Your task to perform on an android device: Search for razer blade on amazon.com, select the first entry, add it to the cart, then select checkout. Image 0: 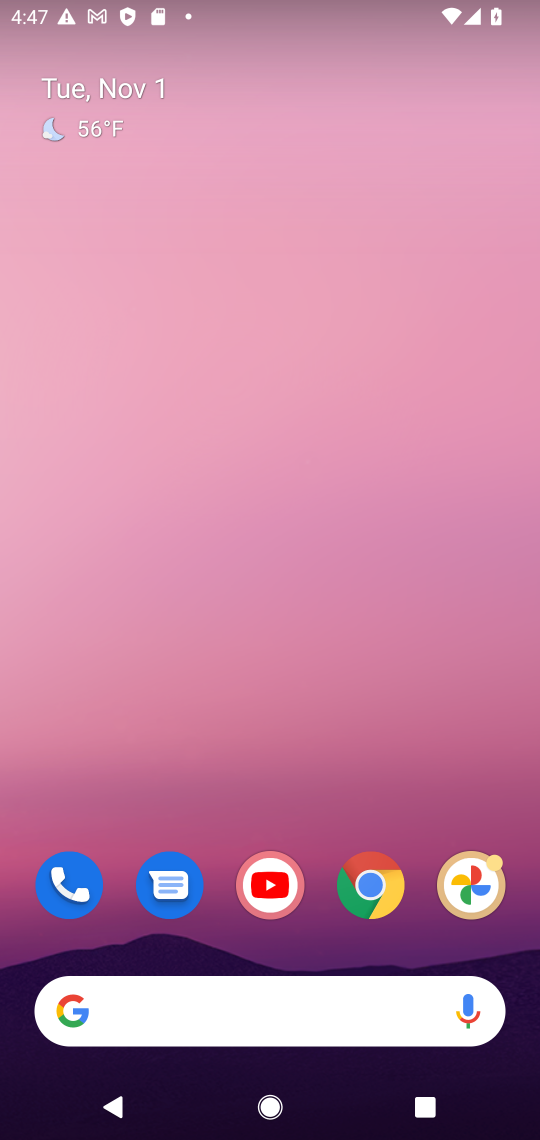
Step 0: click (364, 892)
Your task to perform on an android device: Search for razer blade on amazon.com, select the first entry, add it to the cart, then select checkout. Image 1: 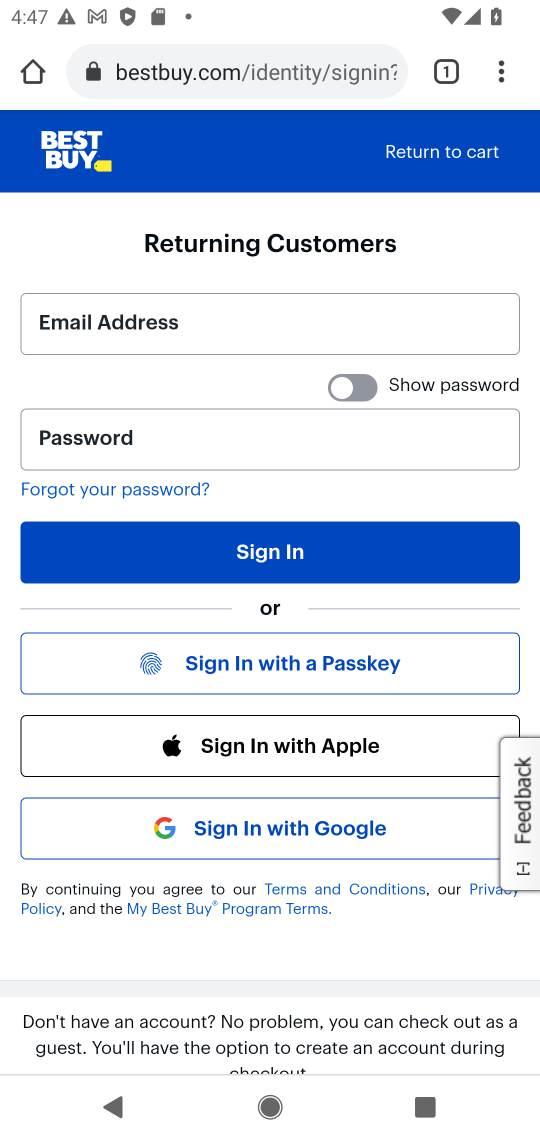
Step 1: click (254, 45)
Your task to perform on an android device: Search for razer blade on amazon.com, select the first entry, add it to the cart, then select checkout. Image 2: 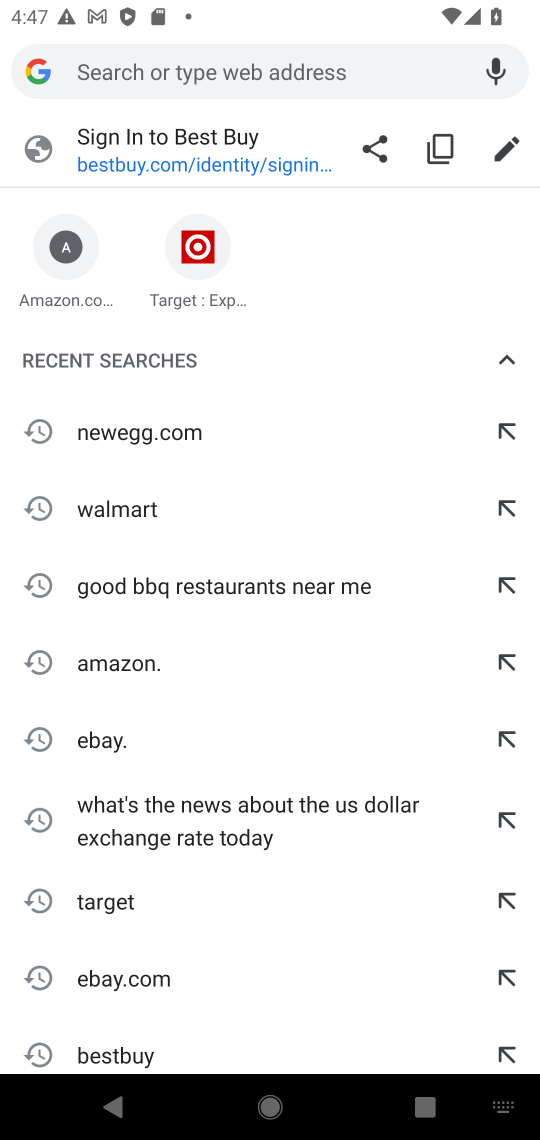
Step 2: type "amazon.com"
Your task to perform on an android device: Search for razer blade on amazon.com, select the first entry, add it to the cart, then select checkout. Image 3: 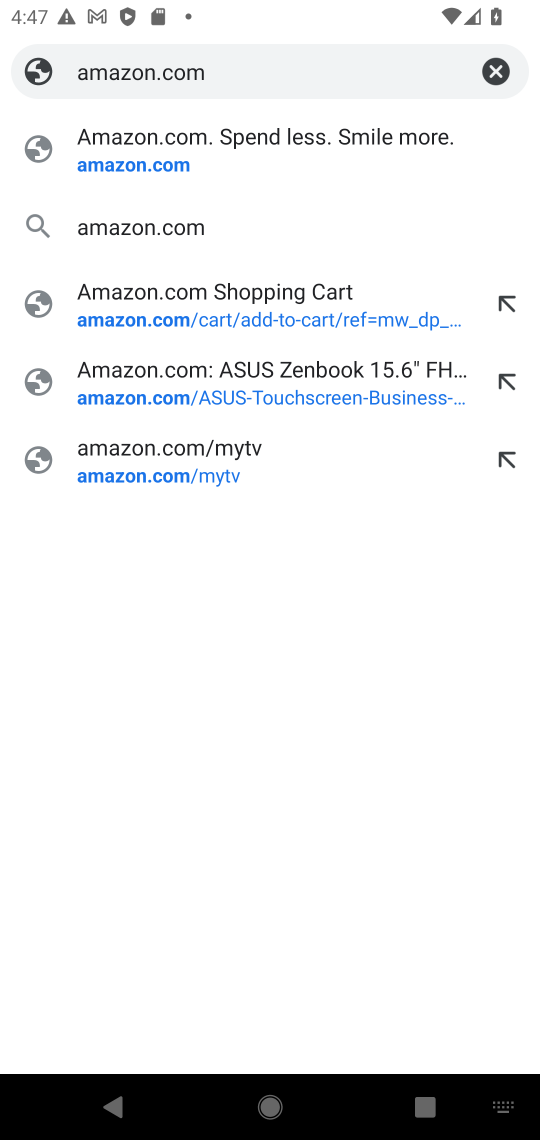
Step 3: click (122, 143)
Your task to perform on an android device: Search for razer blade on amazon.com, select the first entry, add it to the cart, then select checkout. Image 4: 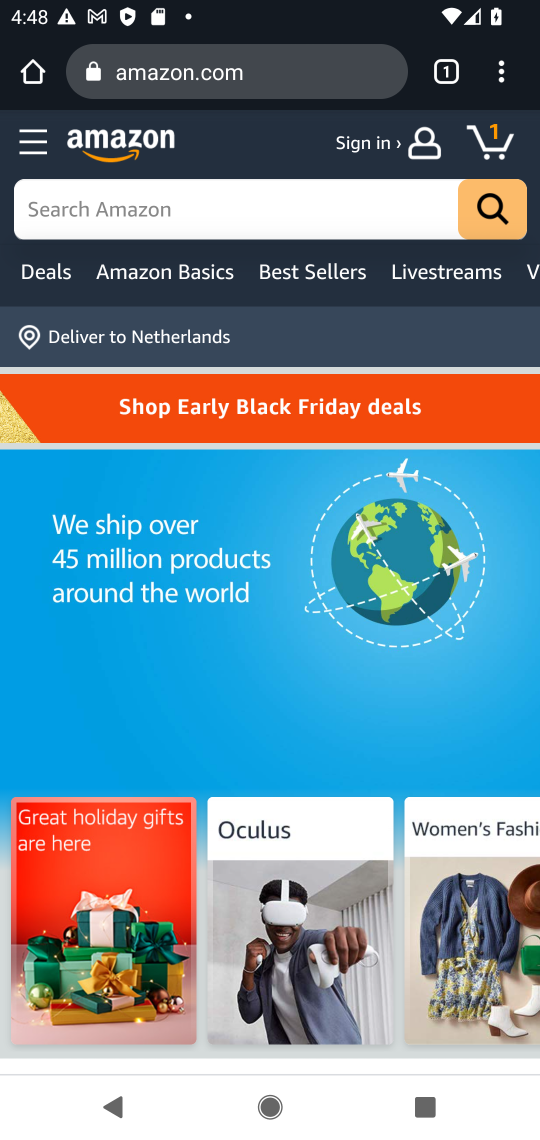
Step 4: click (131, 204)
Your task to perform on an android device: Search for razer blade on amazon.com, select the first entry, add it to the cart, then select checkout. Image 5: 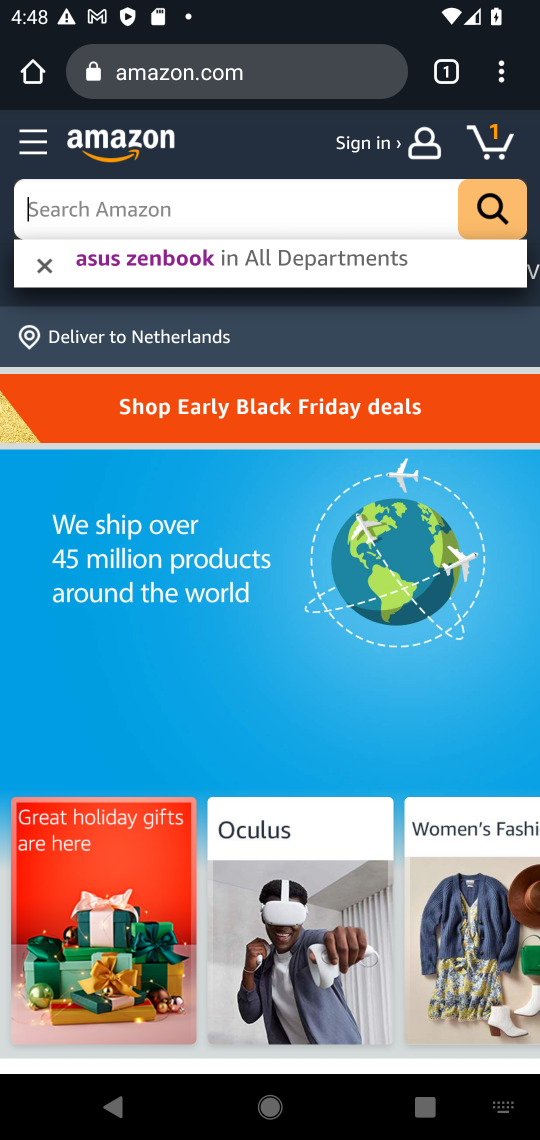
Step 5: type "razer blade"
Your task to perform on an android device: Search for razer blade on amazon.com, select the first entry, add it to the cart, then select checkout. Image 6: 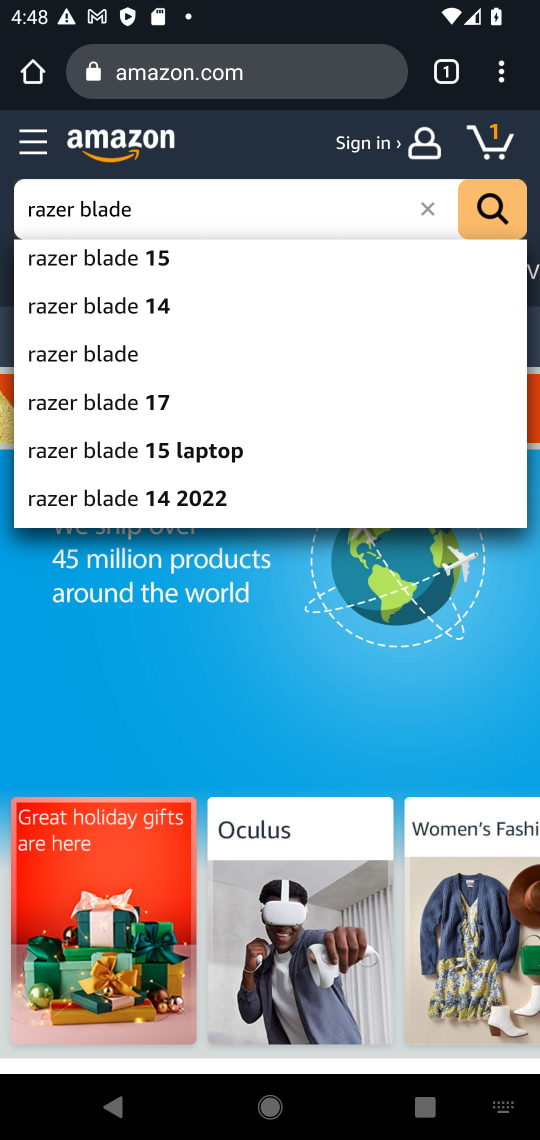
Step 6: click (117, 346)
Your task to perform on an android device: Search for razer blade on amazon.com, select the first entry, add it to the cart, then select checkout. Image 7: 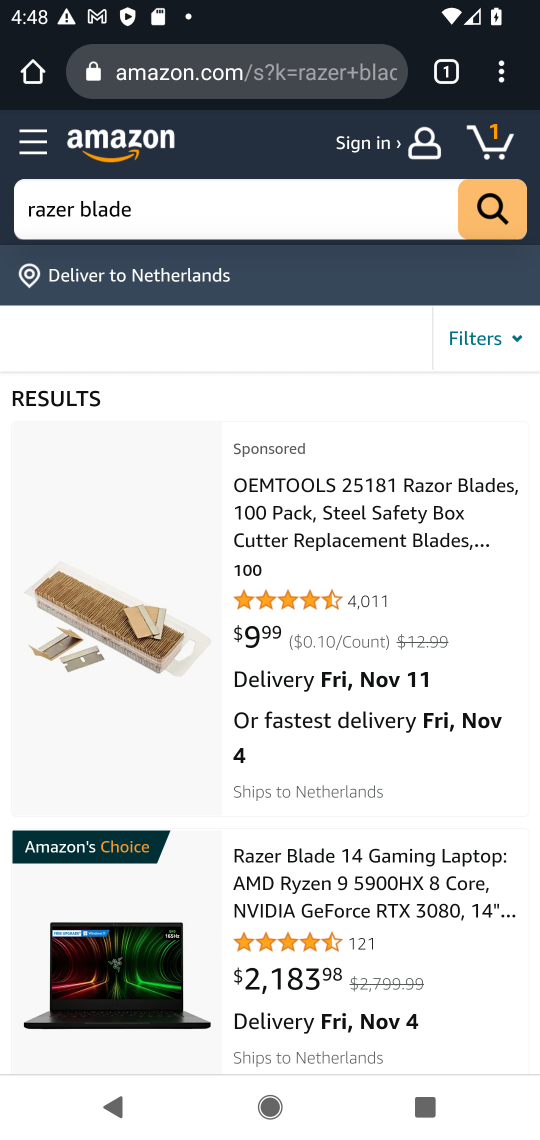
Step 7: drag from (287, 635) to (314, 480)
Your task to perform on an android device: Search for razer blade on amazon.com, select the first entry, add it to the cart, then select checkout. Image 8: 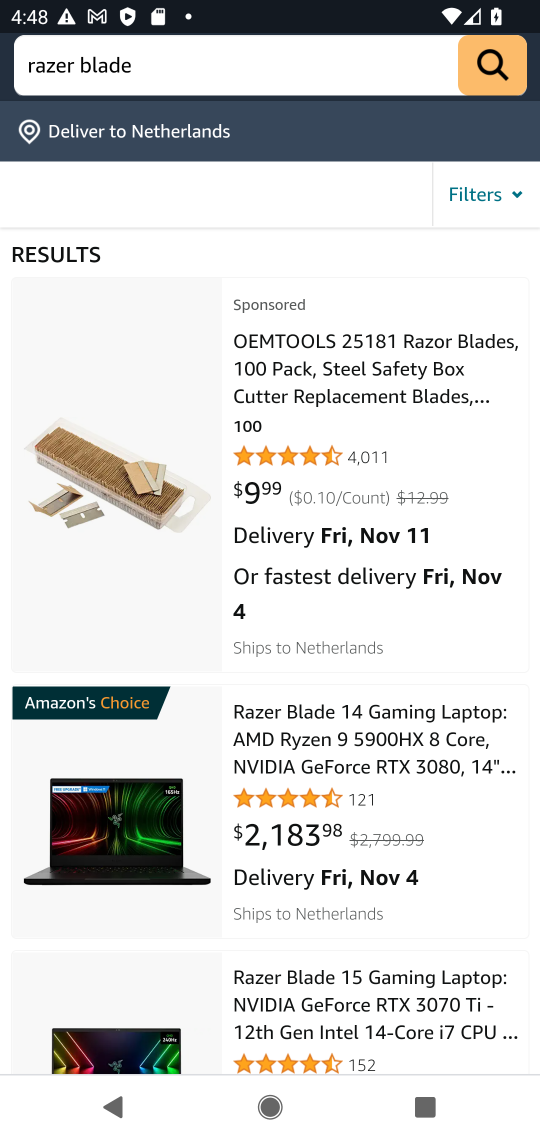
Step 8: click (307, 740)
Your task to perform on an android device: Search for razer blade on amazon.com, select the first entry, add it to the cart, then select checkout. Image 9: 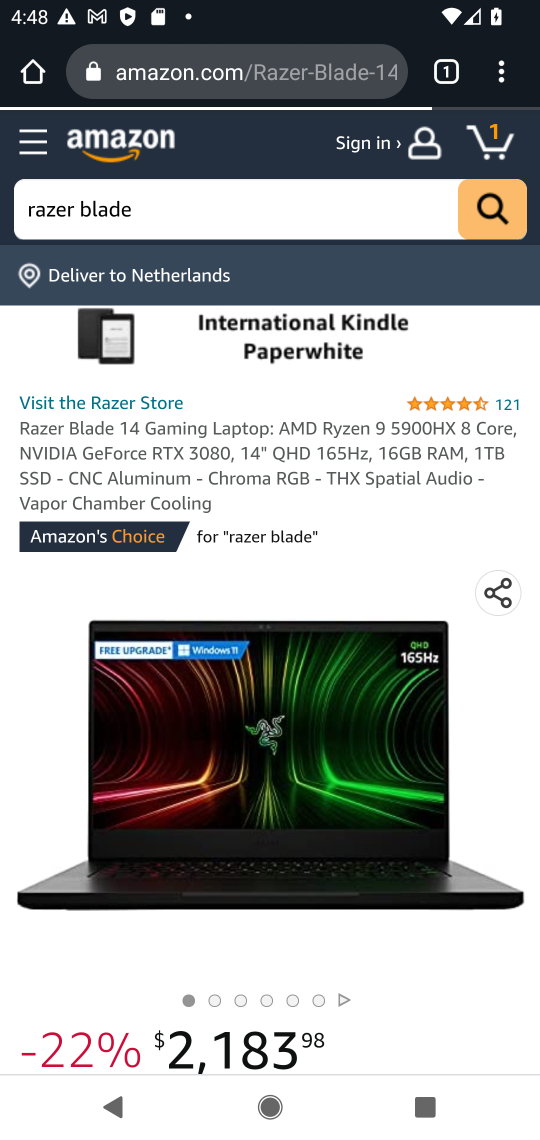
Step 9: drag from (429, 1001) to (357, 432)
Your task to perform on an android device: Search for razer blade on amazon.com, select the first entry, add it to the cart, then select checkout. Image 10: 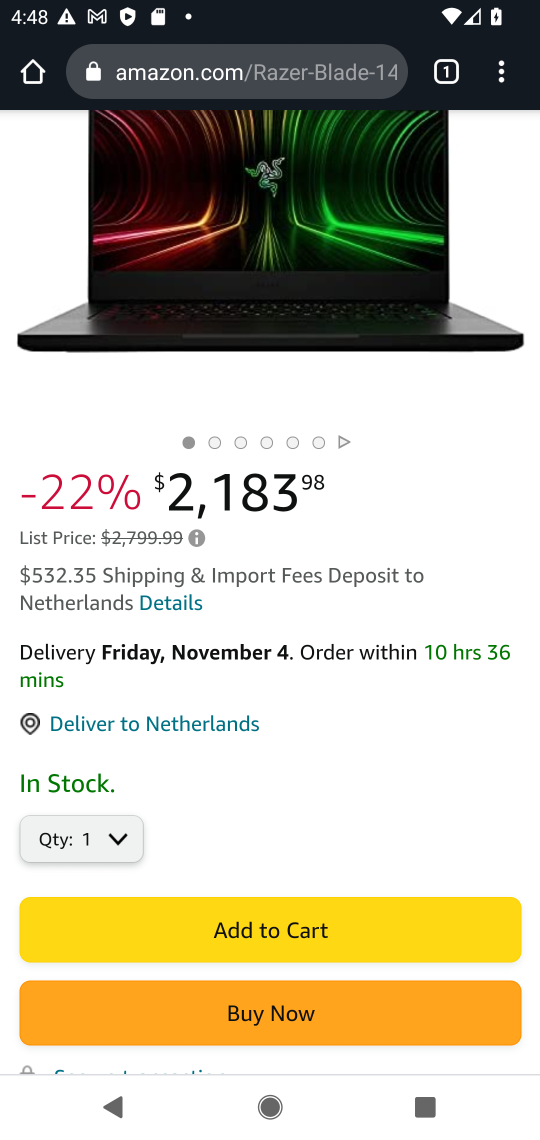
Step 10: click (253, 929)
Your task to perform on an android device: Search for razer blade on amazon.com, select the first entry, add it to the cart, then select checkout. Image 11: 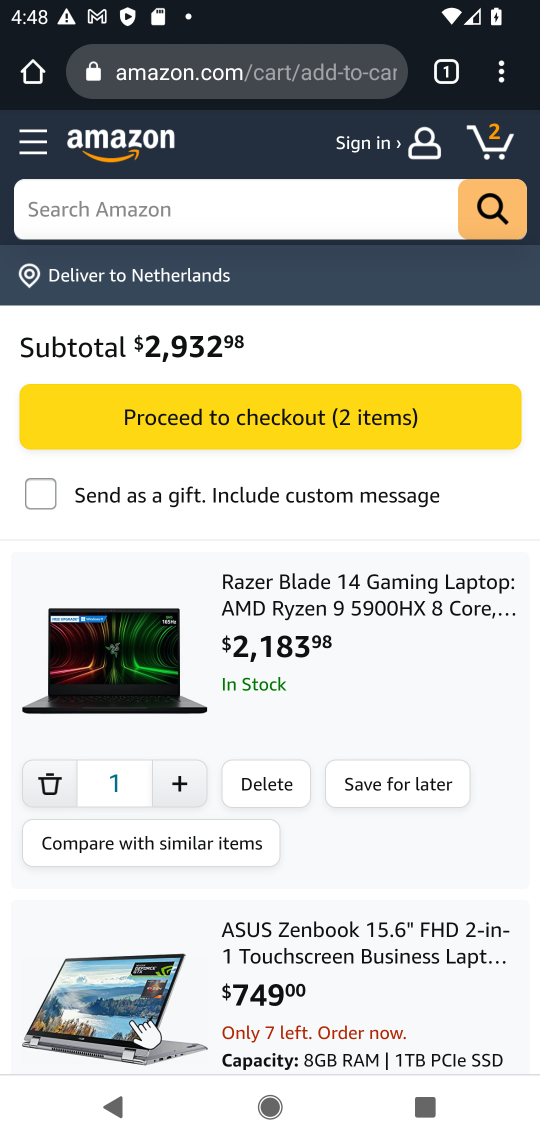
Step 11: click (241, 410)
Your task to perform on an android device: Search for razer blade on amazon.com, select the first entry, add it to the cart, then select checkout. Image 12: 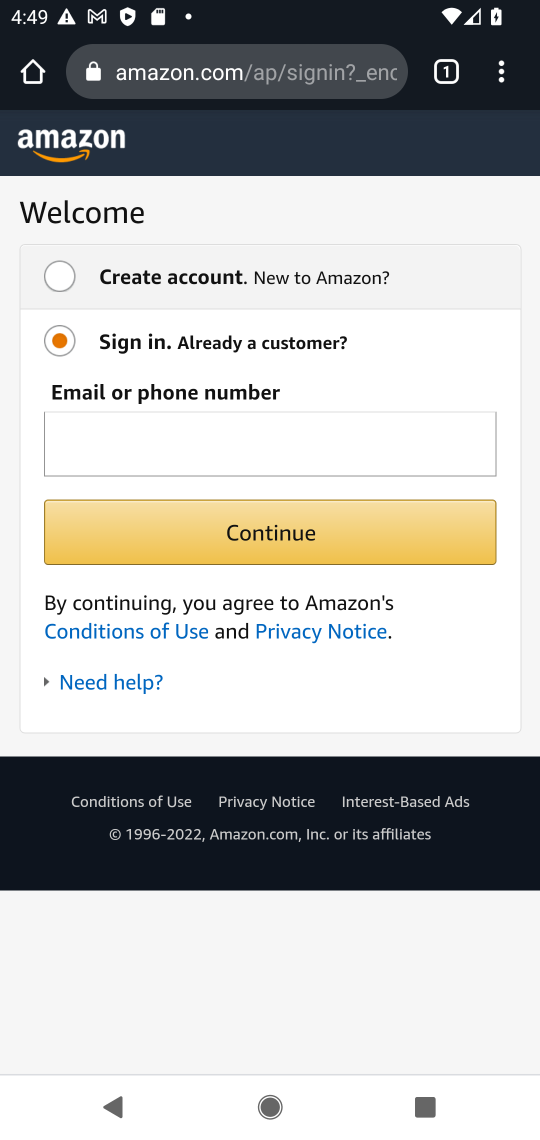
Step 12: task complete